Your task to perform on an android device: Show me popular games on the Play Store Image 0: 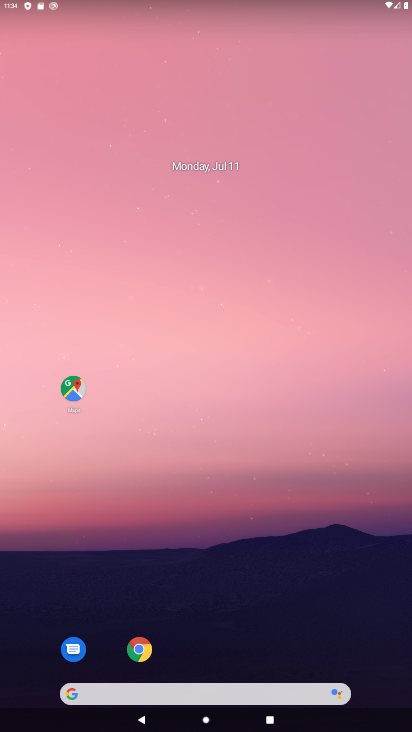
Step 0: drag from (268, 591) to (12, 219)
Your task to perform on an android device: Show me popular games on the Play Store Image 1: 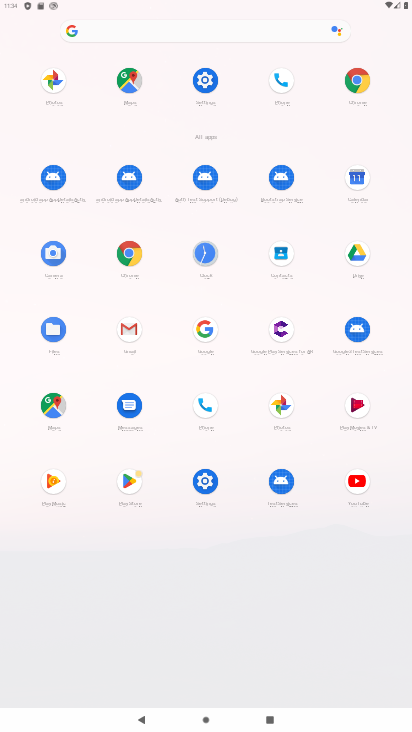
Step 1: click (132, 463)
Your task to perform on an android device: Show me popular games on the Play Store Image 2: 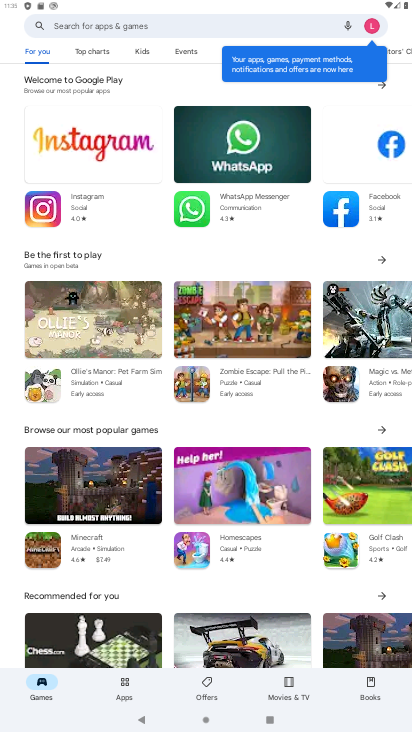
Step 2: click (129, 19)
Your task to perform on an android device: Show me popular games on the Play Store Image 3: 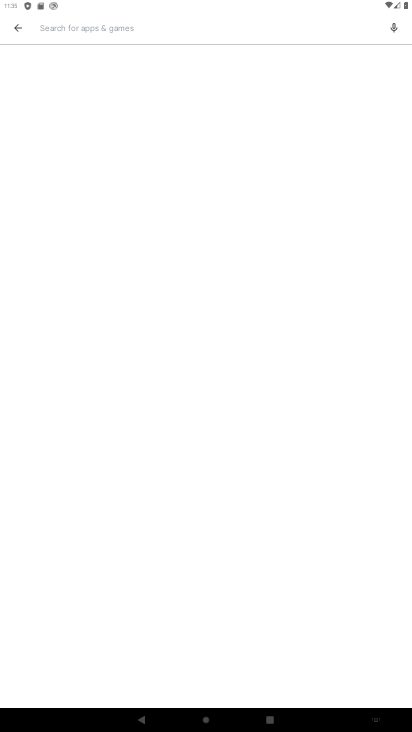
Step 3: type "popular games "
Your task to perform on an android device: Show me popular games on the Play Store Image 4: 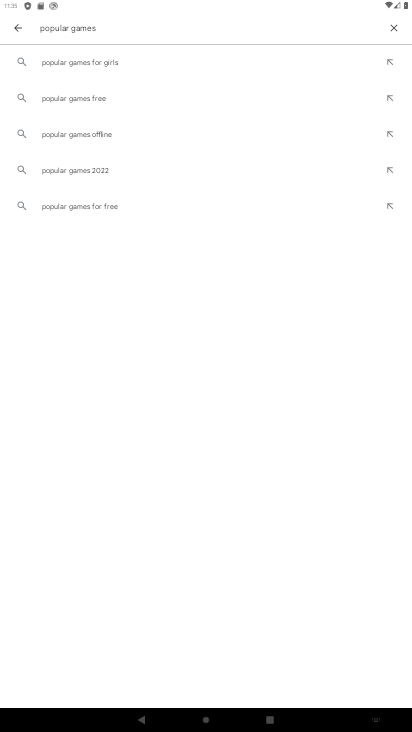
Step 4: press enter
Your task to perform on an android device: Show me popular games on the Play Store Image 5: 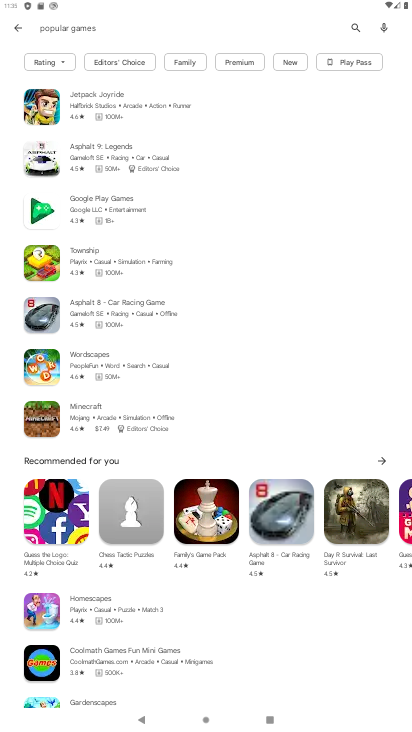
Step 5: task complete